Your task to perform on an android device: turn off javascript in the chrome app Image 0: 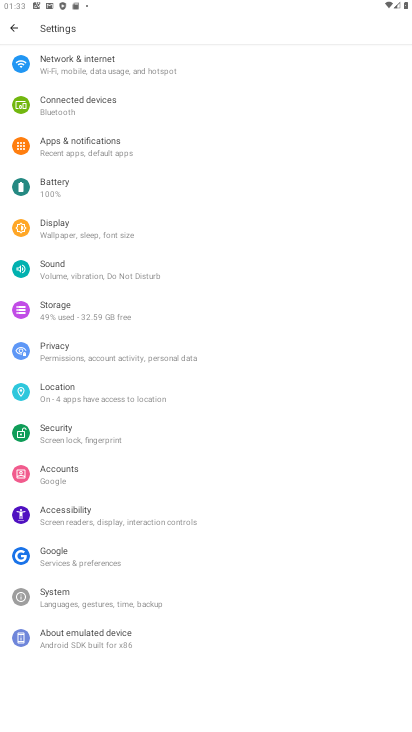
Step 0: press home button
Your task to perform on an android device: turn off javascript in the chrome app Image 1: 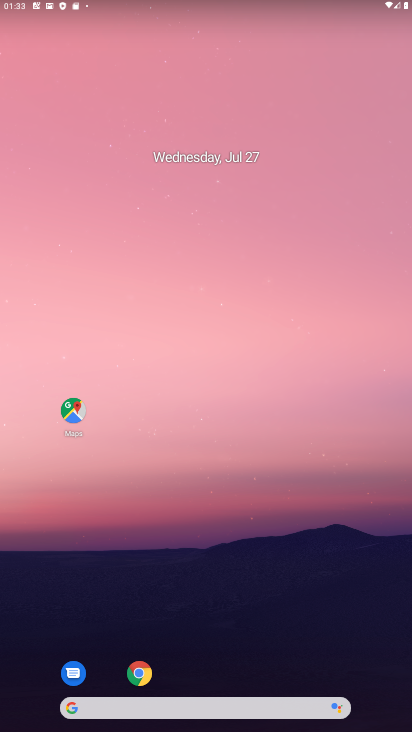
Step 1: click (146, 679)
Your task to perform on an android device: turn off javascript in the chrome app Image 2: 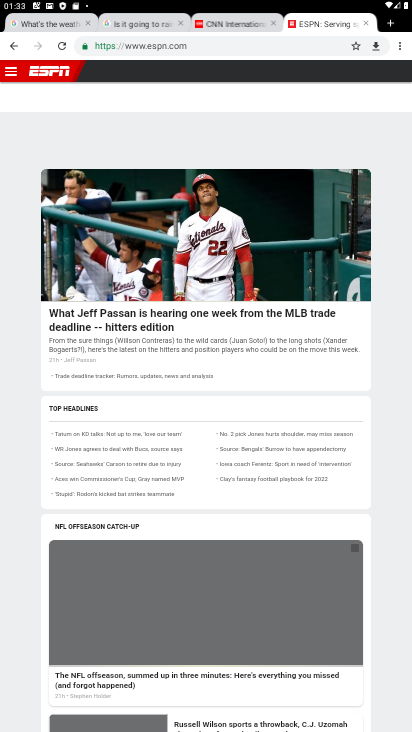
Step 2: click (400, 44)
Your task to perform on an android device: turn off javascript in the chrome app Image 3: 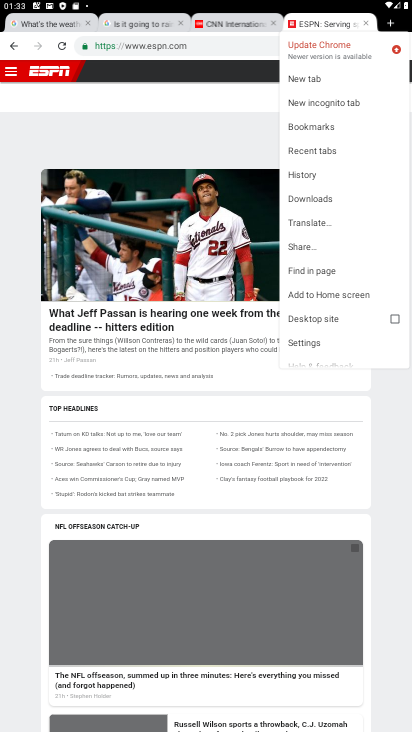
Step 3: click (313, 343)
Your task to perform on an android device: turn off javascript in the chrome app Image 4: 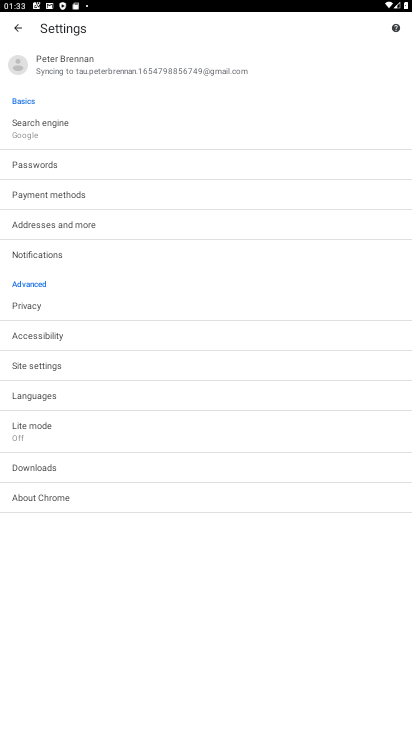
Step 4: click (75, 370)
Your task to perform on an android device: turn off javascript in the chrome app Image 5: 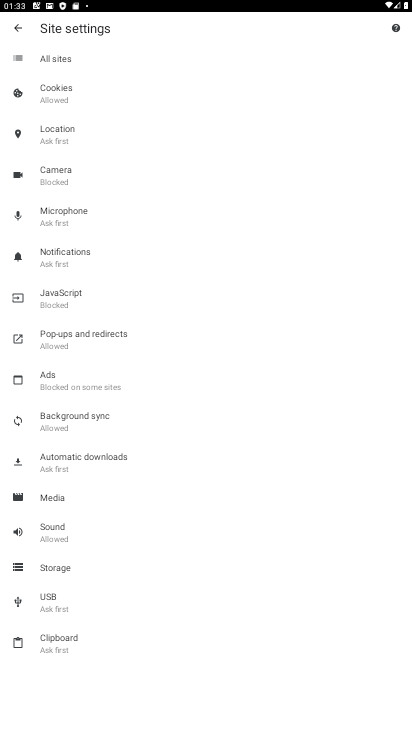
Step 5: click (74, 291)
Your task to perform on an android device: turn off javascript in the chrome app Image 6: 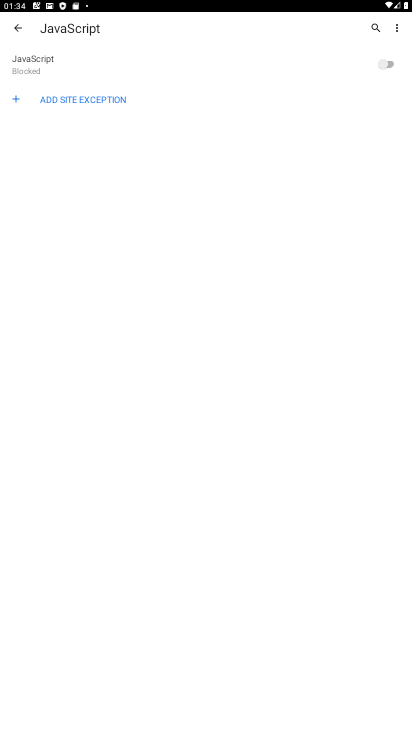
Step 6: task complete